Your task to perform on an android device: see tabs open on other devices in the chrome app Image 0: 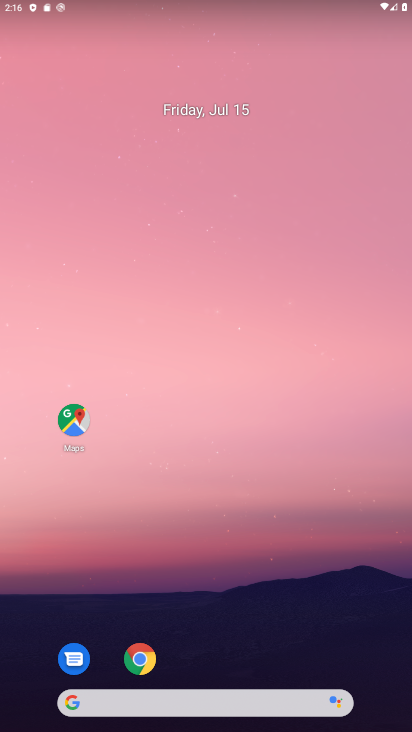
Step 0: drag from (147, 214) to (222, 96)
Your task to perform on an android device: see tabs open on other devices in the chrome app Image 1: 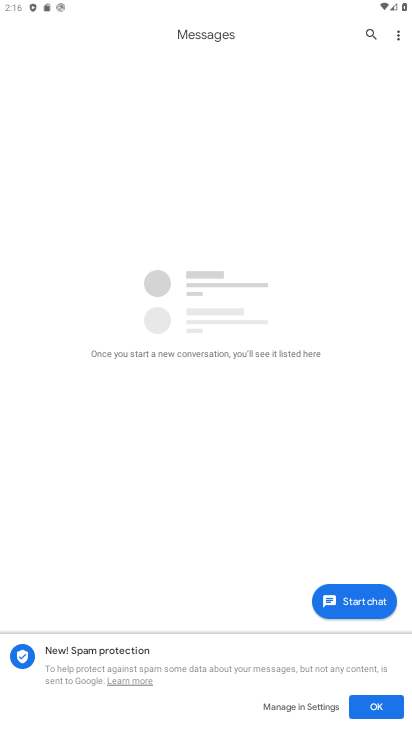
Step 1: press back button
Your task to perform on an android device: see tabs open on other devices in the chrome app Image 2: 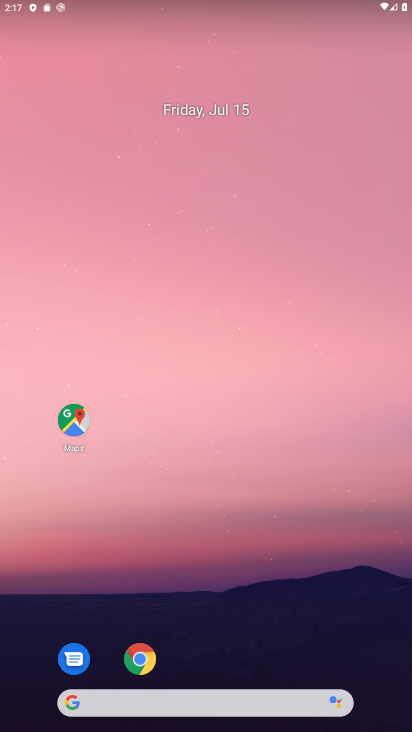
Step 2: drag from (186, 677) to (158, 175)
Your task to perform on an android device: see tabs open on other devices in the chrome app Image 3: 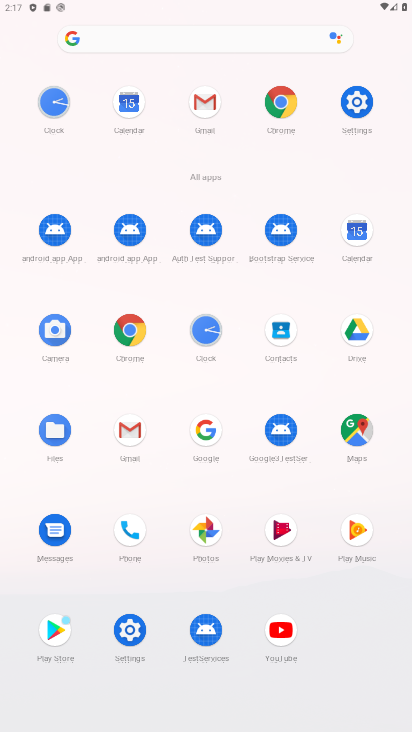
Step 3: click (356, 110)
Your task to perform on an android device: see tabs open on other devices in the chrome app Image 4: 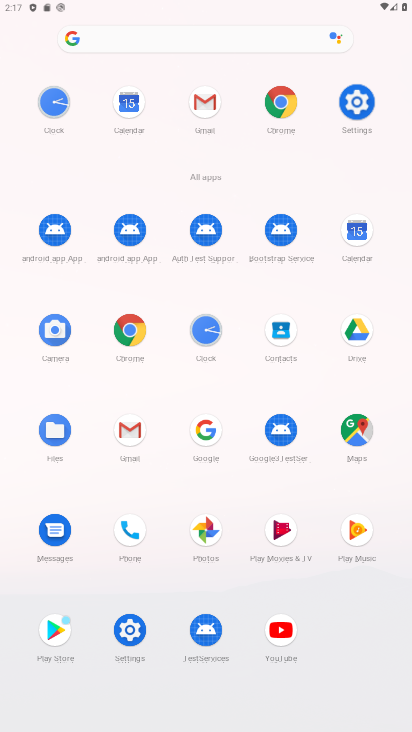
Step 4: click (356, 111)
Your task to perform on an android device: see tabs open on other devices in the chrome app Image 5: 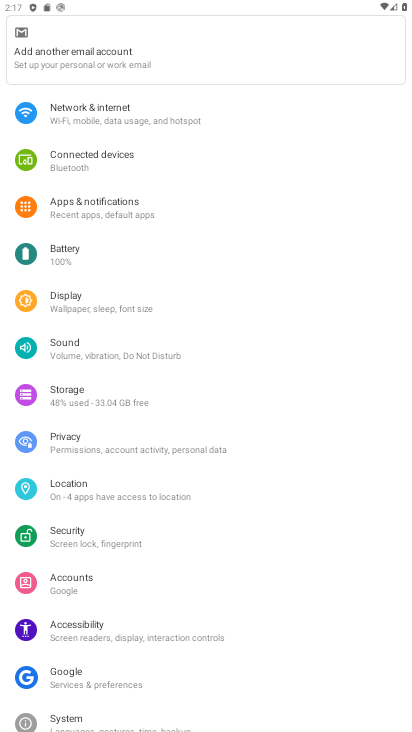
Step 5: press back button
Your task to perform on an android device: see tabs open on other devices in the chrome app Image 6: 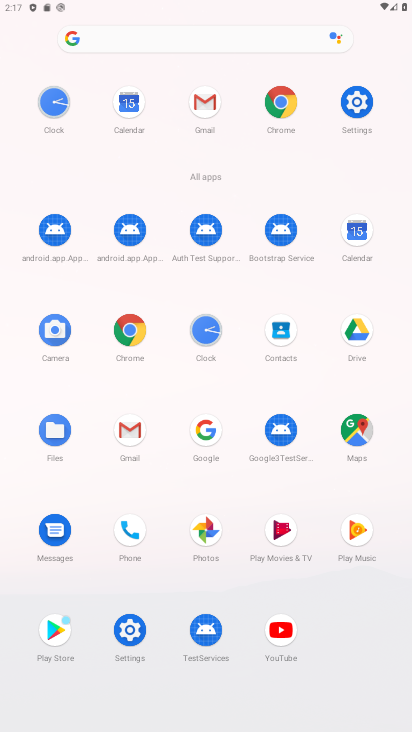
Step 6: click (133, 345)
Your task to perform on an android device: see tabs open on other devices in the chrome app Image 7: 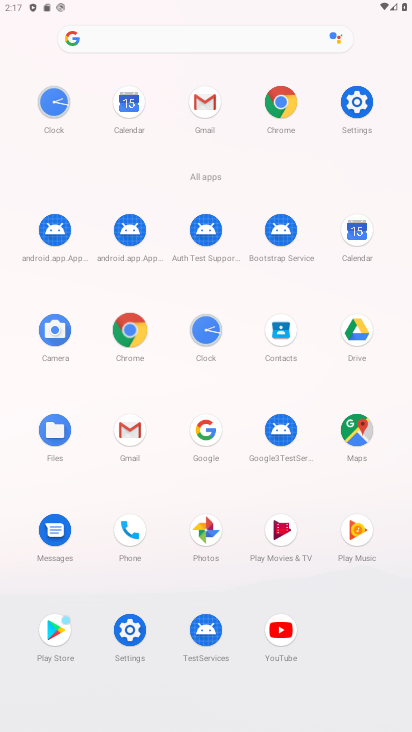
Step 7: click (125, 339)
Your task to perform on an android device: see tabs open on other devices in the chrome app Image 8: 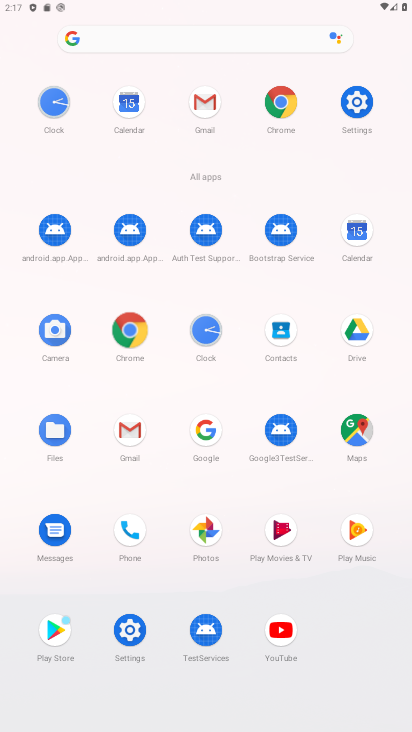
Step 8: click (126, 336)
Your task to perform on an android device: see tabs open on other devices in the chrome app Image 9: 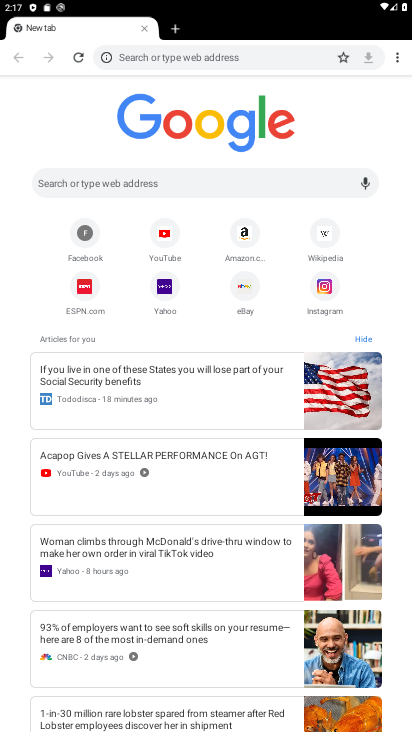
Step 9: drag from (398, 50) to (279, 156)
Your task to perform on an android device: see tabs open on other devices in the chrome app Image 10: 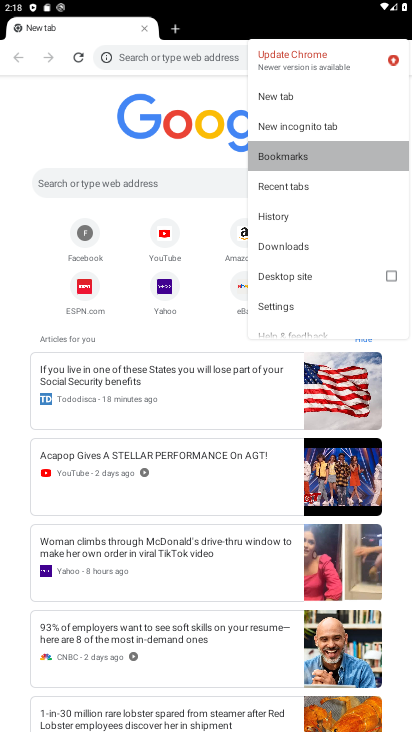
Step 10: click (279, 156)
Your task to perform on an android device: see tabs open on other devices in the chrome app Image 11: 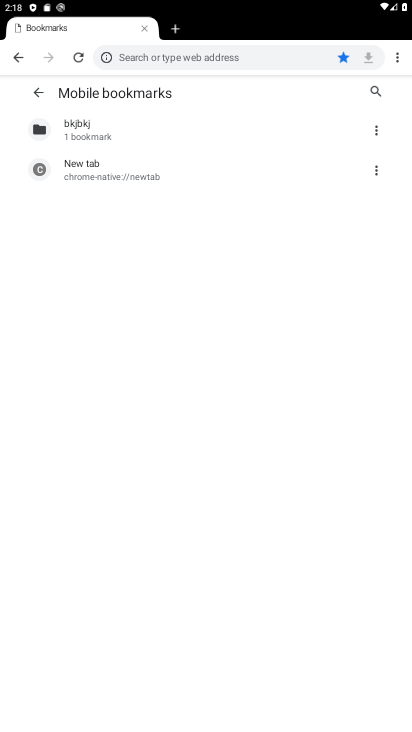
Step 11: task complete